Your task to perform on an android device: Go to internet settings Image 0: 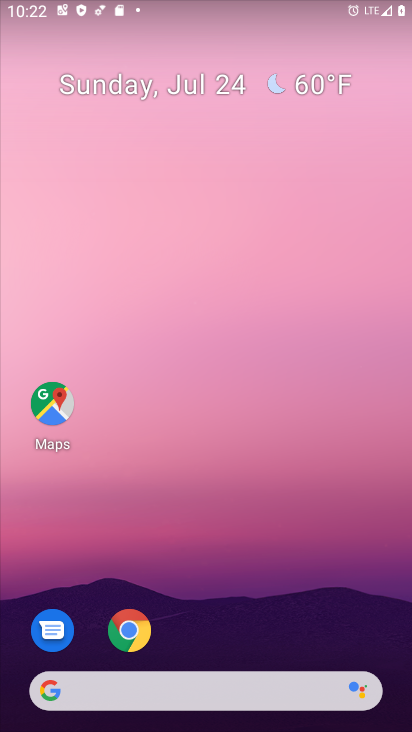
Step 0: drag from (207, 617) to (351, 35)
Your task to perform on an android device: Go to internet settings Image 1: 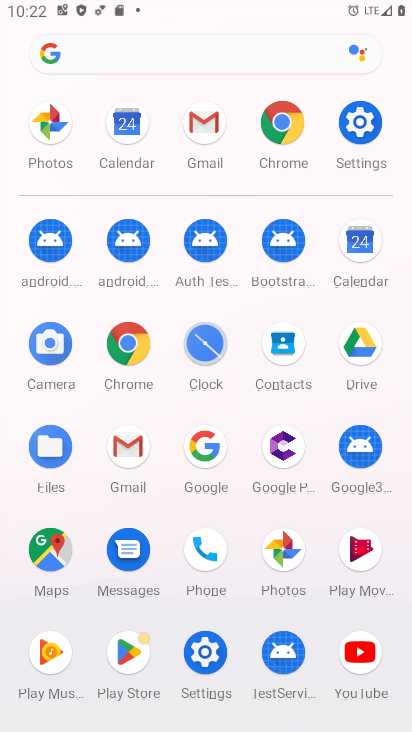
Step 1: click (208, 653)
Your task to perform on an android device: Go to internet settings Image 2: 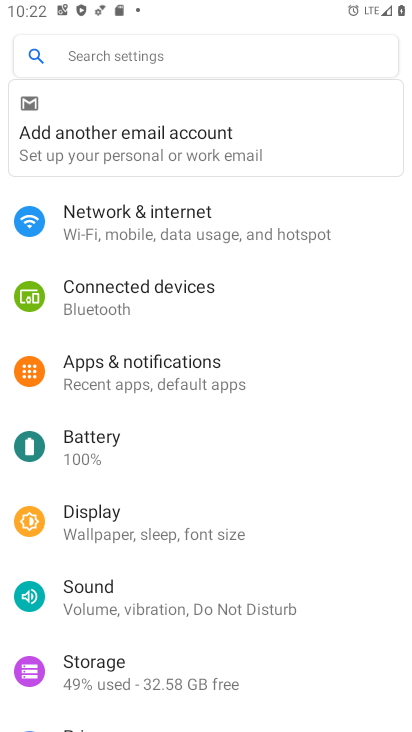
Step 2: click (168, 228)
Your task to perform on an android device: Go to internet settings Image 3: 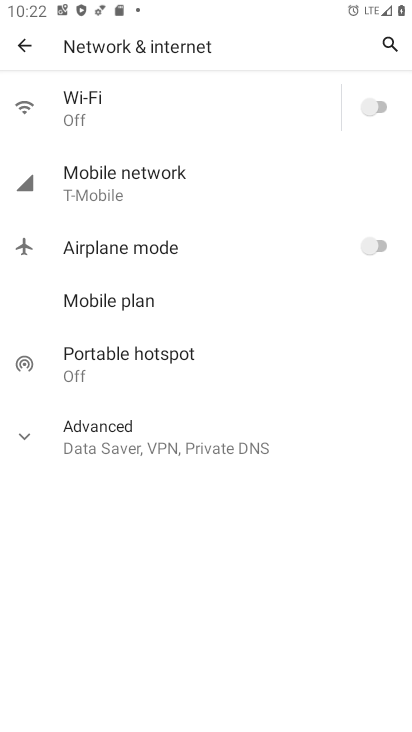
Step 3: task complete